Your task to perform on an android device: Search for vegetarian restaurants on Maps Image 0: 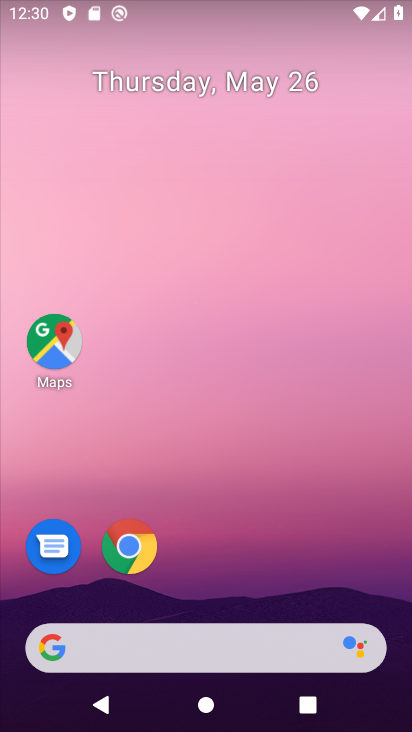
Step 0: click (73, 355)
Your task to perform on an android device: Search for vegetarian restaurants on Maps Image 1: 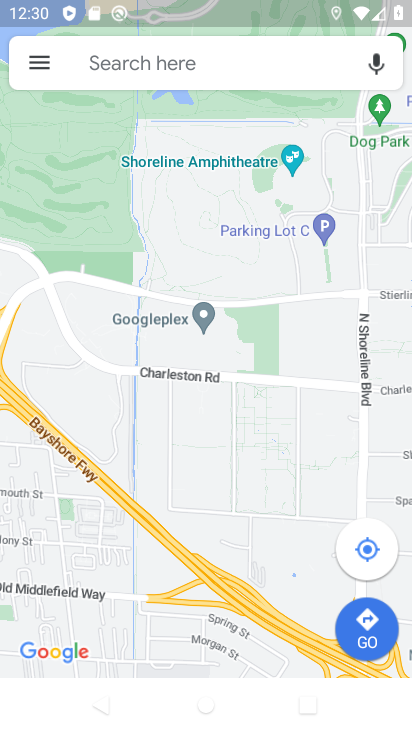
Step 1: click (188, 60)
Your task to perform on an android device: Search for vegetarian restaurants on Maps Image 2: 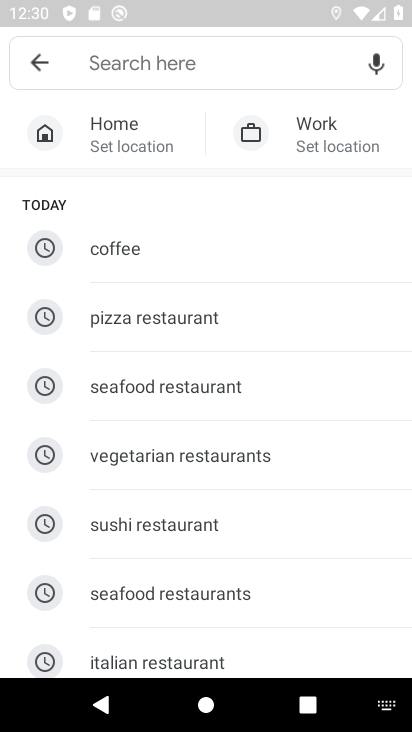
Step 2: type " vegetarian restaurants "
Your task to perform on an android device: Search for vegetarian restaurants on Maps Image 3: 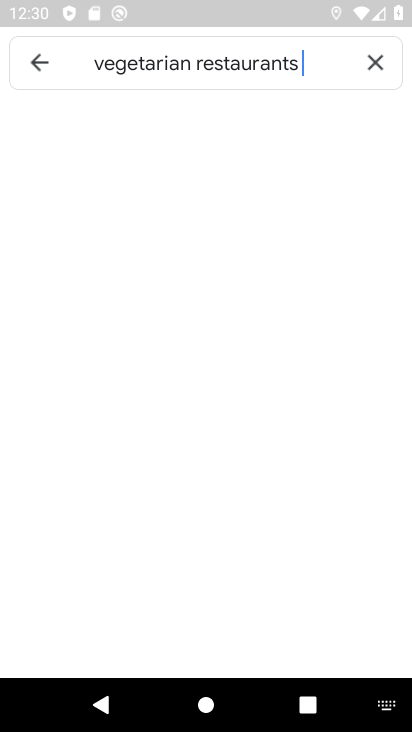
Step 3: click (49, 118)
Your task to perform on an android device: Search for vegetarian restaurants on Maps Image 4: 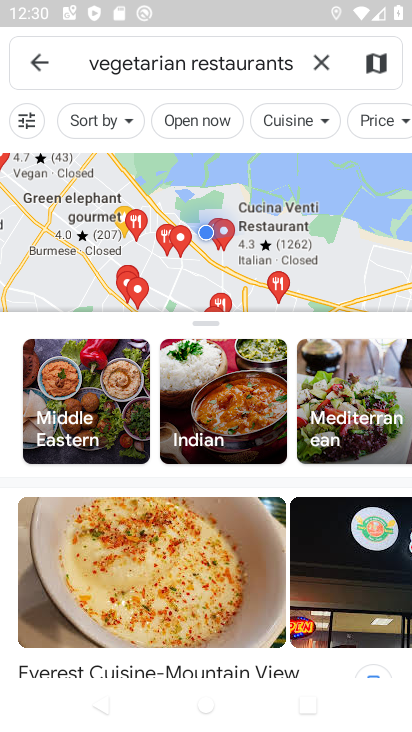
Step 4: task complete